Your task to perform on an android device: toggle airplane mode Image 0: 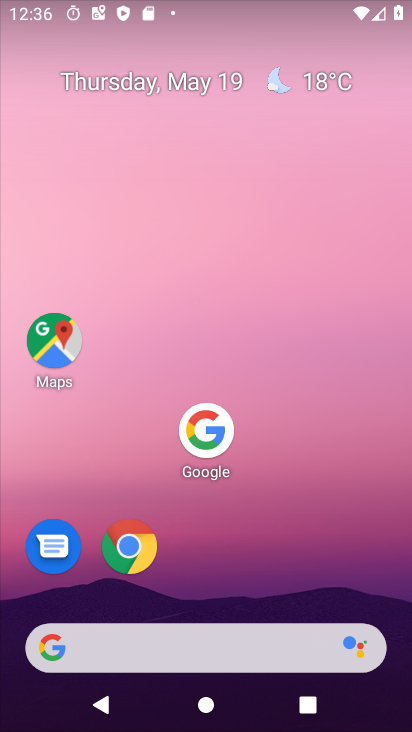
Step 0: drag from (246, 547) to (214, 44)
Your task to perform on an android device: toggle airplane mode Image 1: 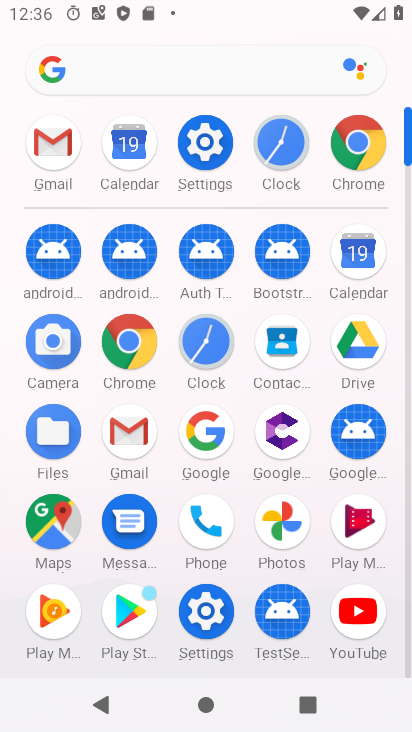
Step 1: click (209, 139)
Your task to perform on an android device: toggle airplane mode Image 2: 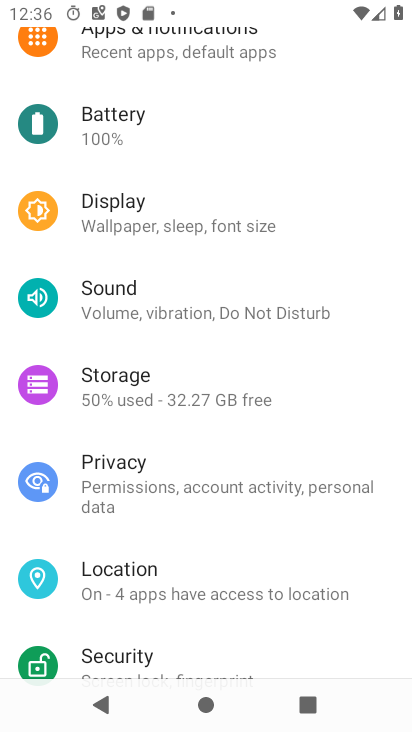
Step 2: drag from (265, 168) to (306, 654)
Your task to perform on an android device: toggle airplane mode Image 3: 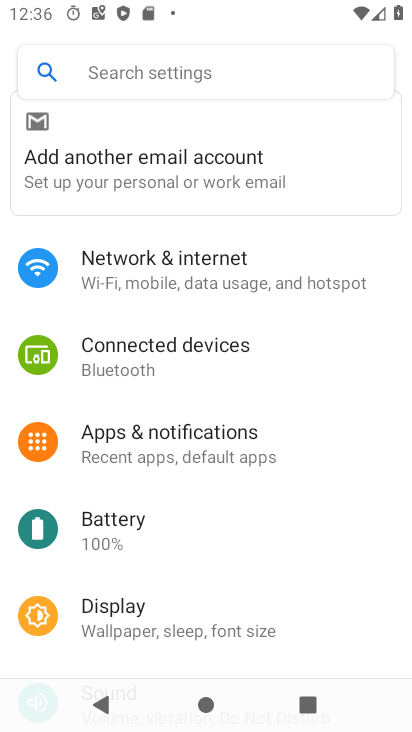
Step 3: click (219, 263)
Your task to perform on an android device: toggle airplane mode Image 4: 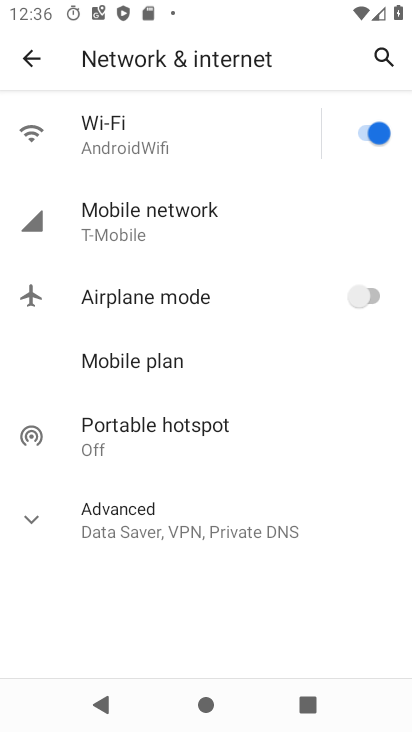
Step 4: click (361, 295)
Your task to perform on an android device: toggle airplane mode Image 5: 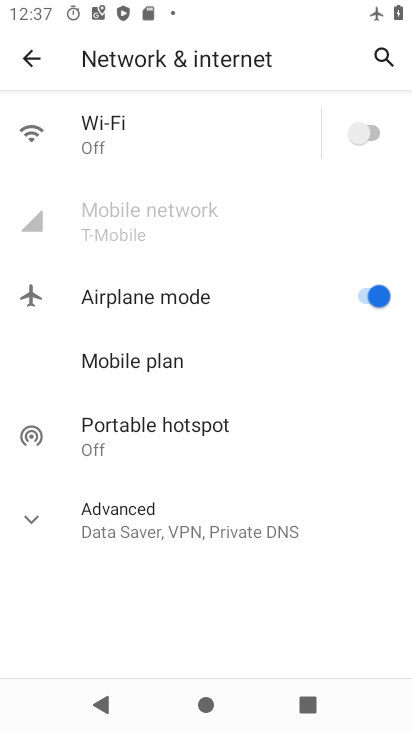
Step 5: task complete